Your task to perform on an android device: Open the phone app and click the voicemail tab. Image 0: 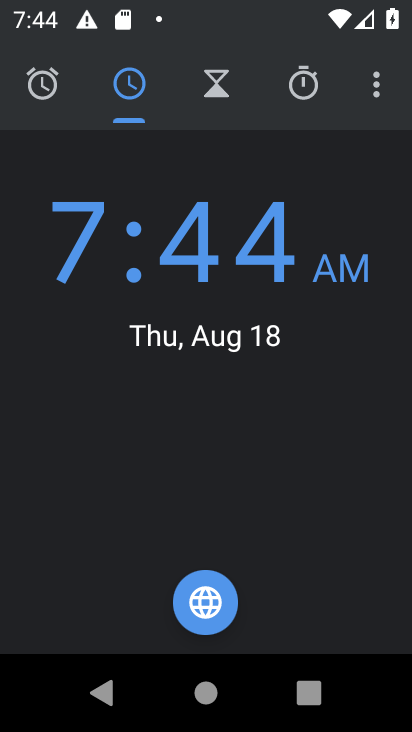
Step 0: task complete